Your task to perform on an android device: What's the weather going to be tomorrow? Image 0: 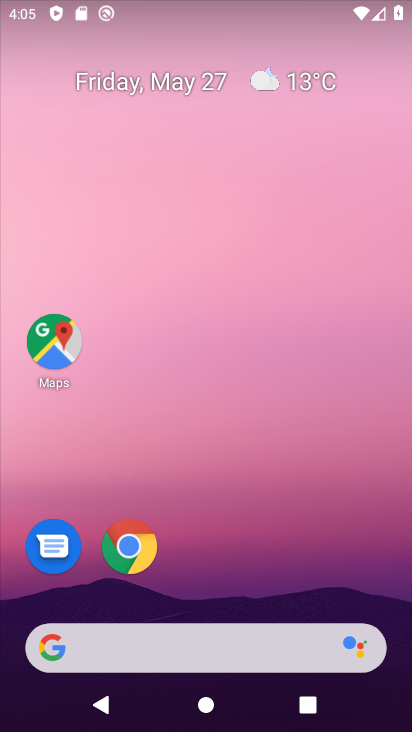
Step 0: drag from (23, 210) to (411, 268)
Your task to perform on an android device: What's the weather going to be tomorrow? Image 1: 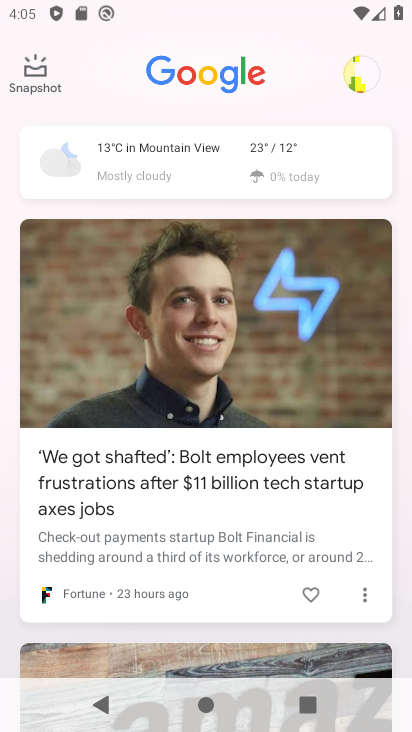
Step 1: click (238, 169)
Your task to perform on an android device: What's the weather going to be tomorrow? Image 2: 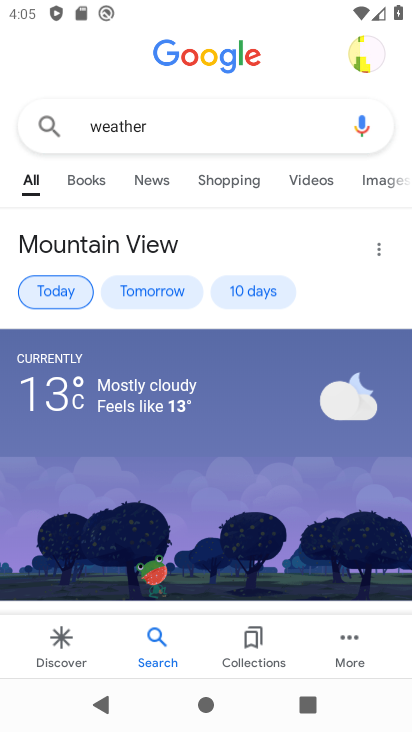
Step 2: click (167, 293)
Your task to perform on an android device: What's the weather going to be tomorrow? Image 3: 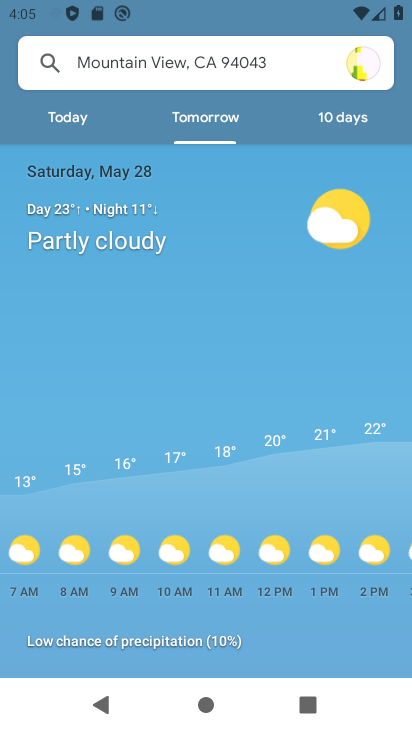
Step 3: task complete